Your task to perform on an android device: change alarm snooze length Image 0: 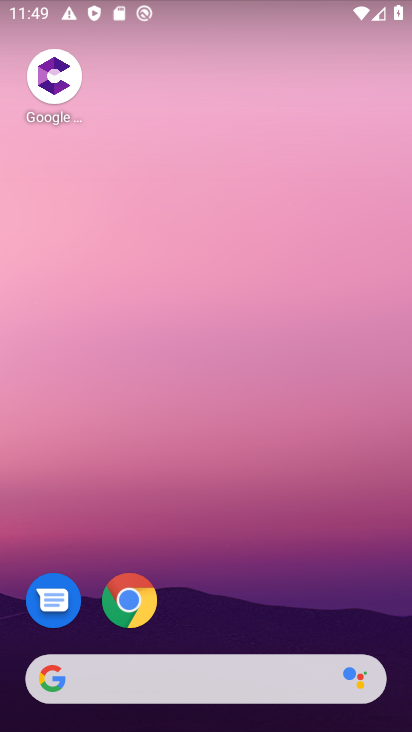
Step 0: drag from (182, 593) to (232, 106)
Your task to perform on an android device: change alarm snooze length Image 1: 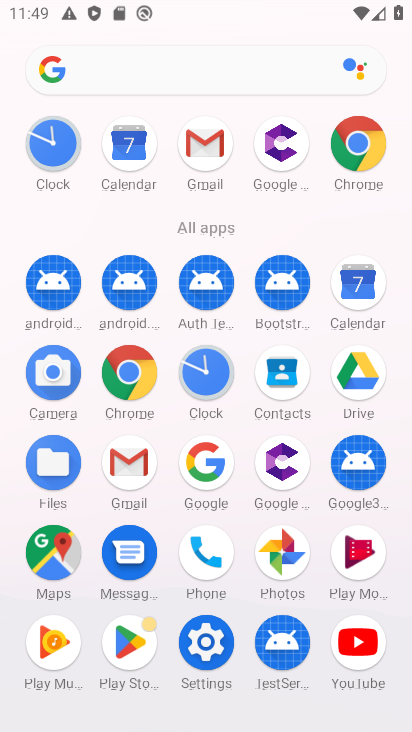
Step 1: click (71, 163)
Your task to perform on an android device: change alarm snooze length Image 2: 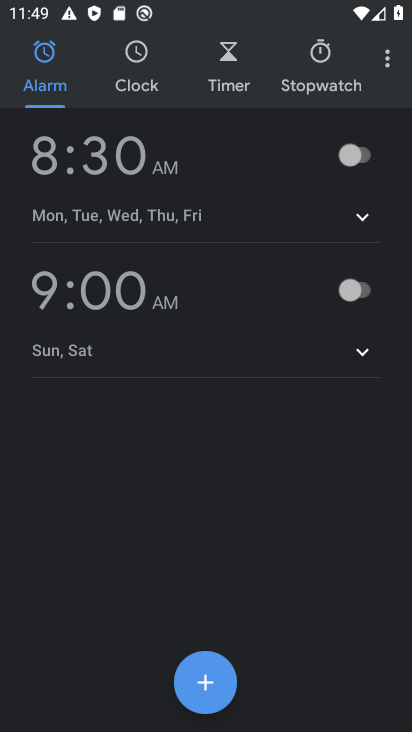
Step 2: click (393, 64)
Your task to perform on an android device: change alarm snooze length Image 3: 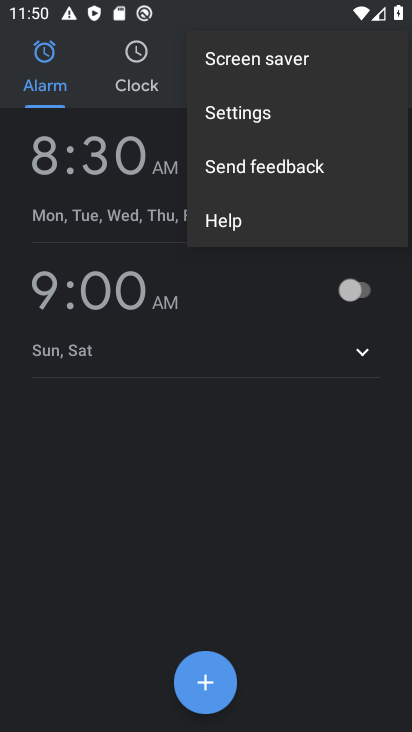
Step 3: click (203, 116)
Your task to perform on an android device: change alarm snooze length Image 4: 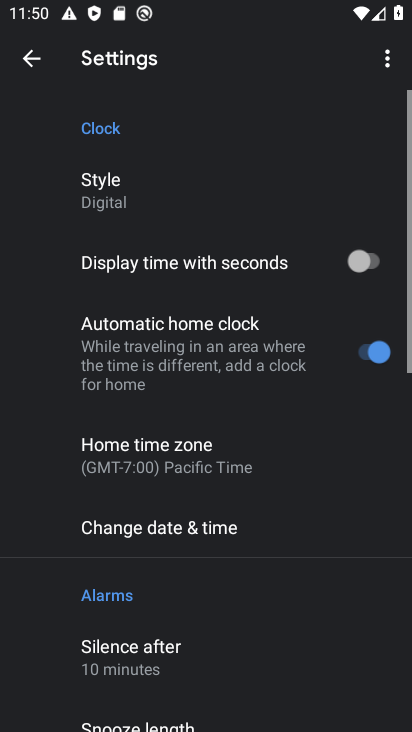
Step 4: drag from (198, 650) to (223, 223)
Your task to perform on an android device: change alarm snooze length Image 5: 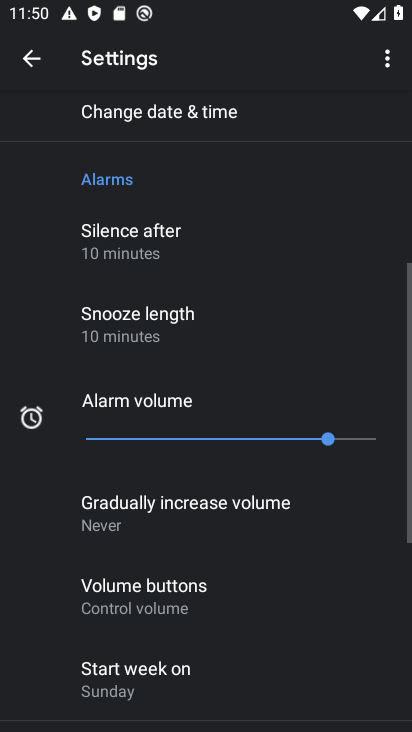
Step 5: click (182, 320)
Your task to perform on an android device: change alarm snooze length Image 6: 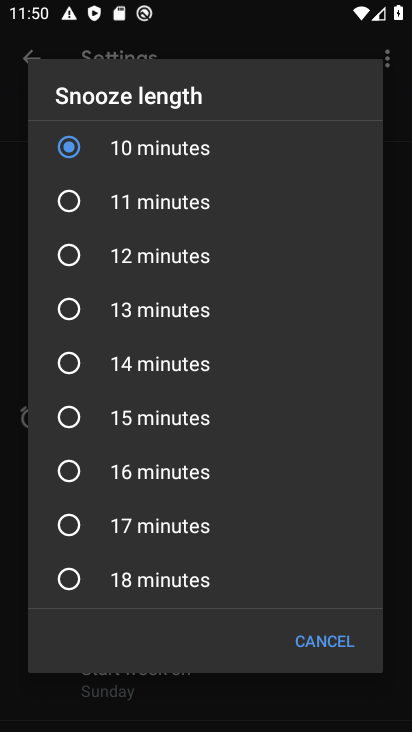
Step 6: click (153, 420)
Your task to perform on an android device: change alarm snooze length Image 7: 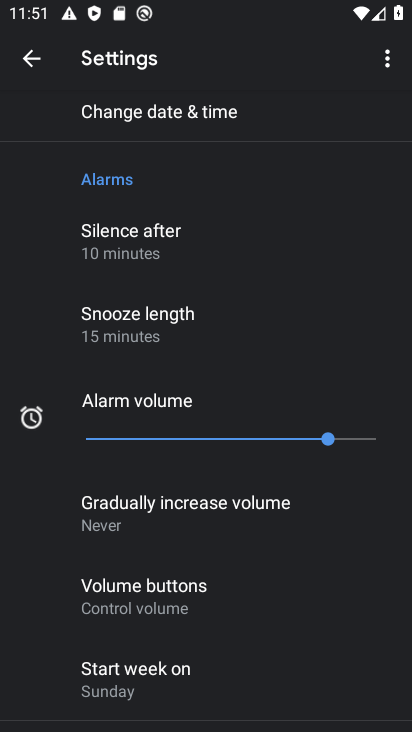
Step 7: task complete